Your task to perform on an android device: Is it going to rain this weekend? Image 0: 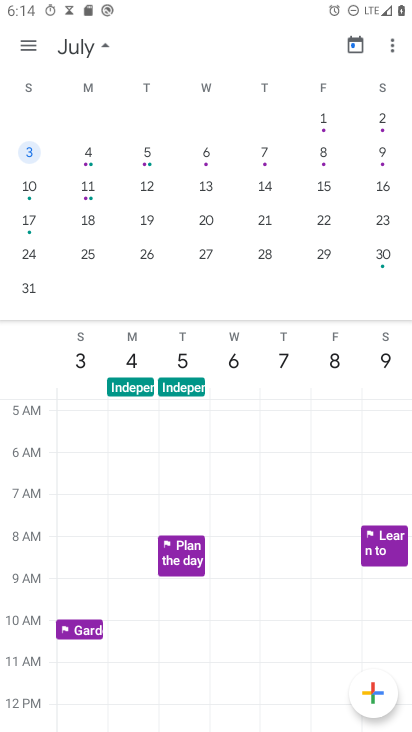
Step 0: press home button
Your task to perform on an android device: Is it going to rain this weekend? Image 1: 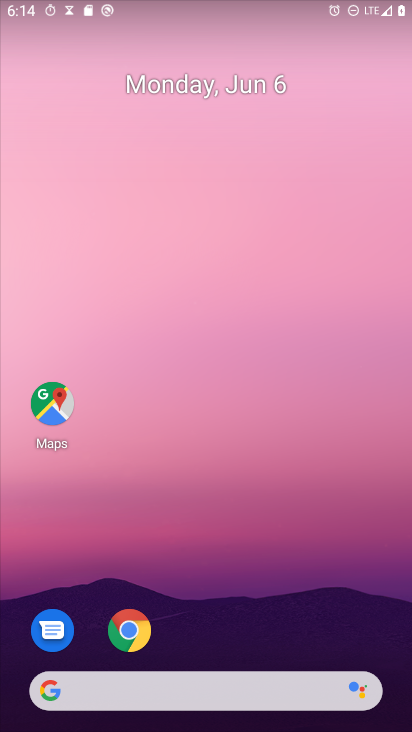
Step 1: drag from (281, 334) to (238, 33)
Your task to perform on an android device: Is it going to rain this weekend? Image 2: 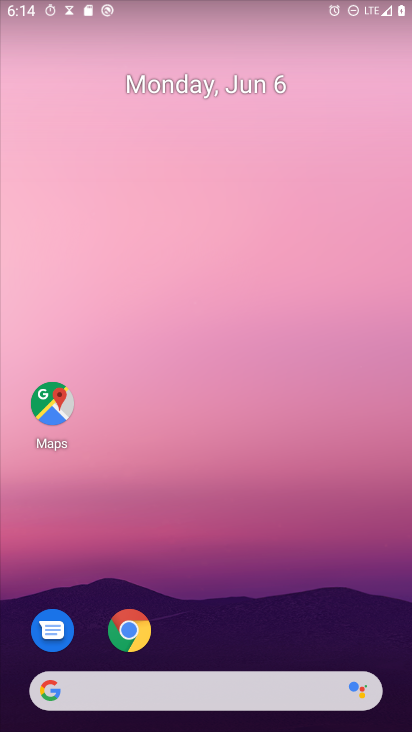
Step 2: drag from (262, 514) to (181, 6)
Your task to perform on an android device: Is it going to rain this weekend? Image 3: 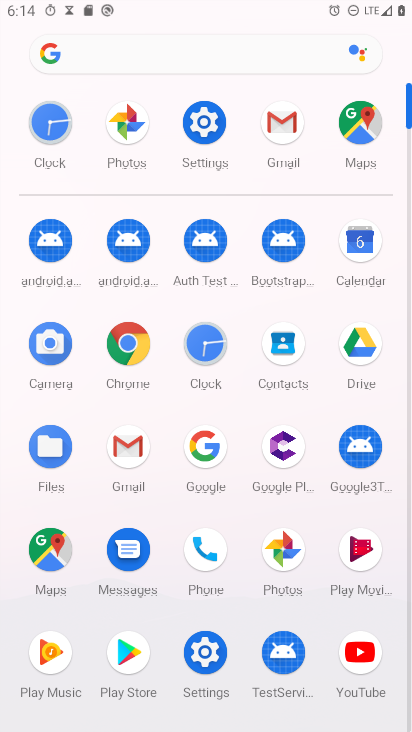
Step 3: click (207, 442)
Your task to perform on an android device: Is it going to rain this weekend? Image 4: 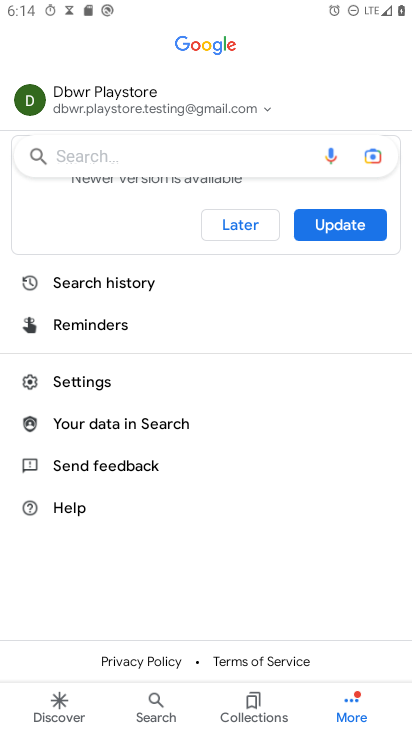
Step 4: click (185, 376)
Your task to perform on an android device: Is it going to rain this weekend? Image 5: 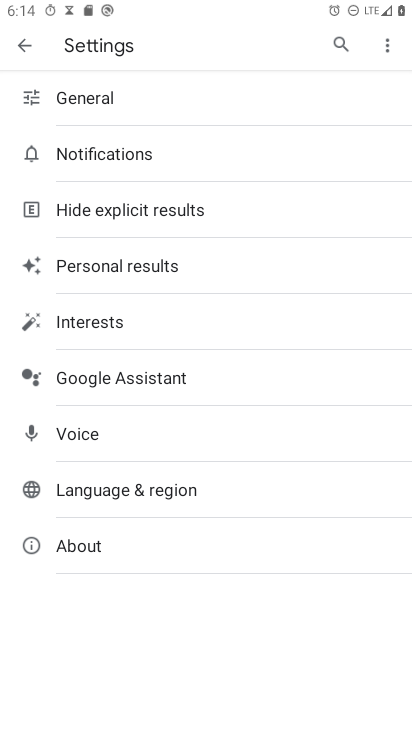
Step 5: click (28, 51)
Your task to perform on an android device: Is it going to rain this weekend? Image 6: 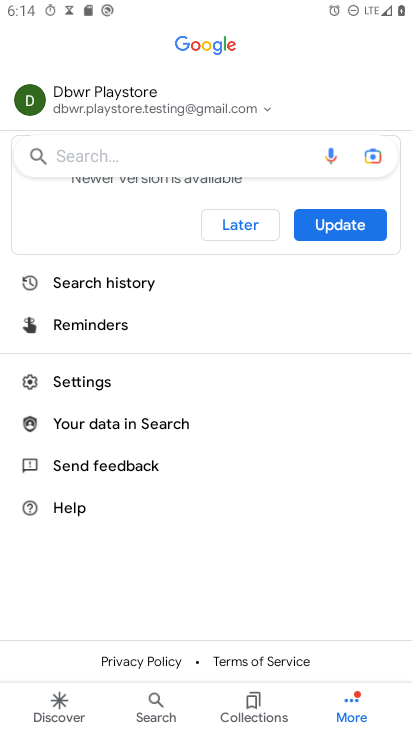
Step 6: click (139, 142)
Your task to perform on an android device: Is it going to rain this weekend? Image 7: 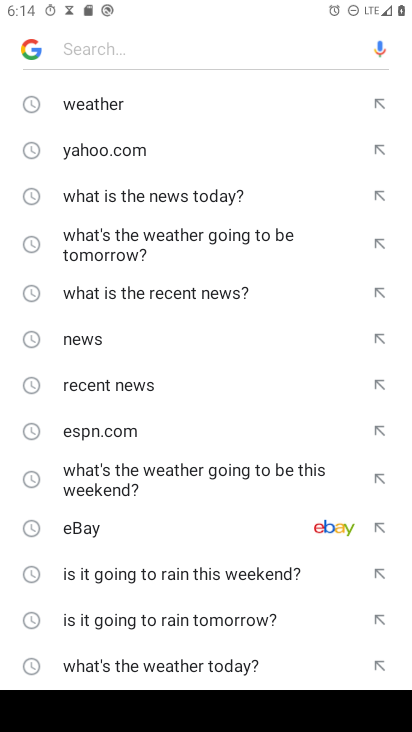
Step 7: click (126, 100)
Your task to perform on an android device: Is it going to rain this weekend? Image 8: 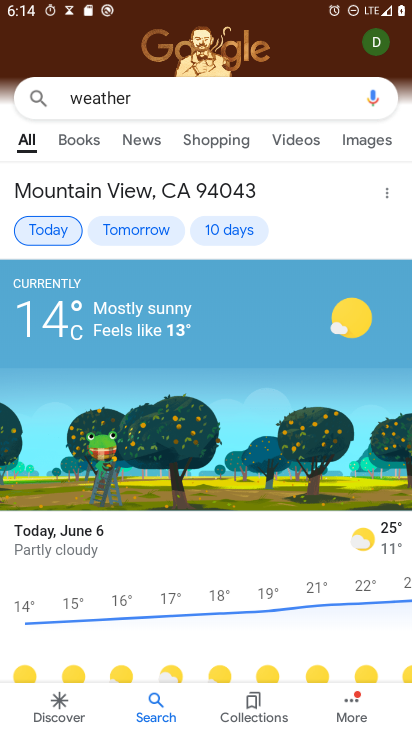
Step 8: click (227, 230)
Your task to perform on an android device: Is it going to rain this weekend? Image 9: 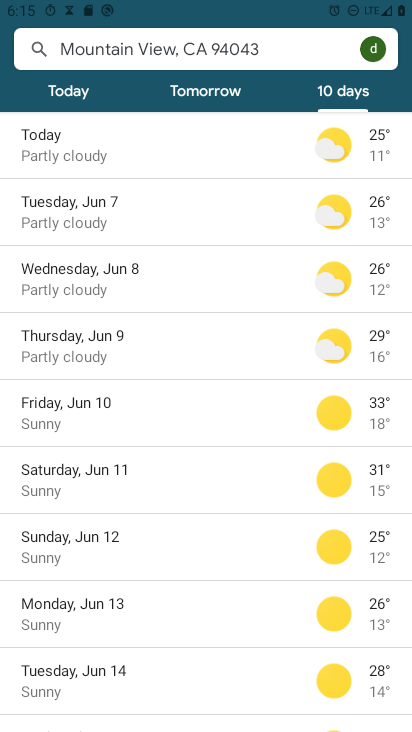
Step 9: task complete